Your task to perform on an android device: change the clock style Image 0: 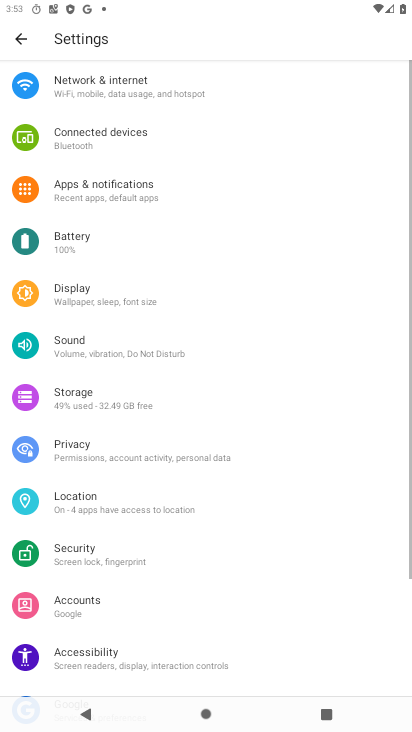
Step 0: press home button
Your task to perform on an android device: change the clock style Image 1: 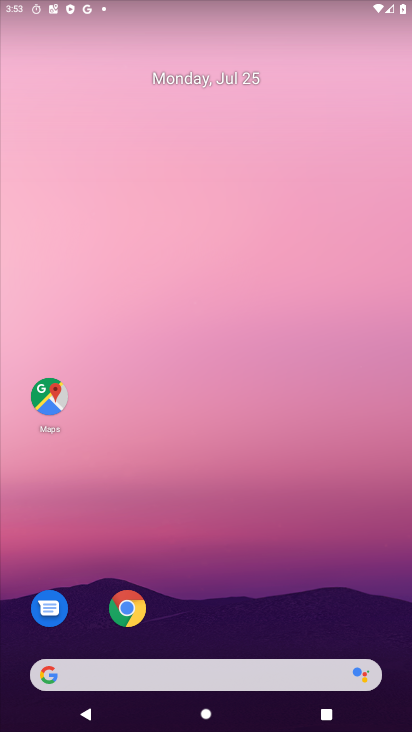
Step 1: drag from (208, 639) to (212, 7)
Your task to perform on an android device: change the clock style Image 2: 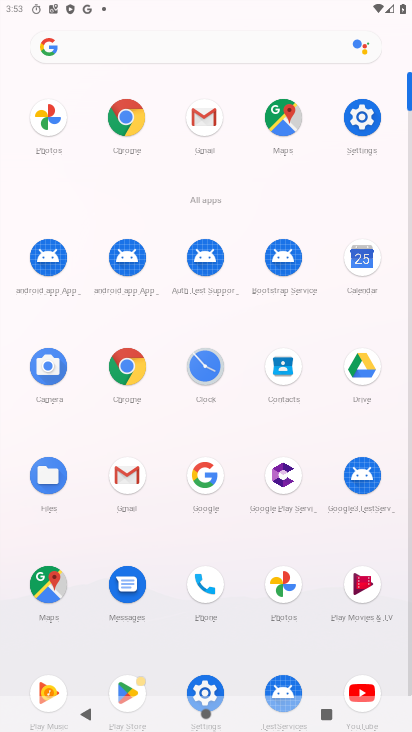
Step 2: click (204, 355)
Your task to perform on an android device: change the clock style Image 3: 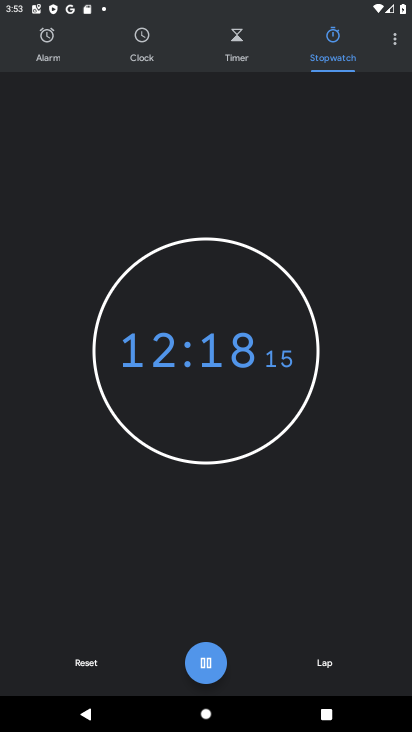
Step 3: click (86, 660)
Your task to perform on an android device: change the clock style Image 4: 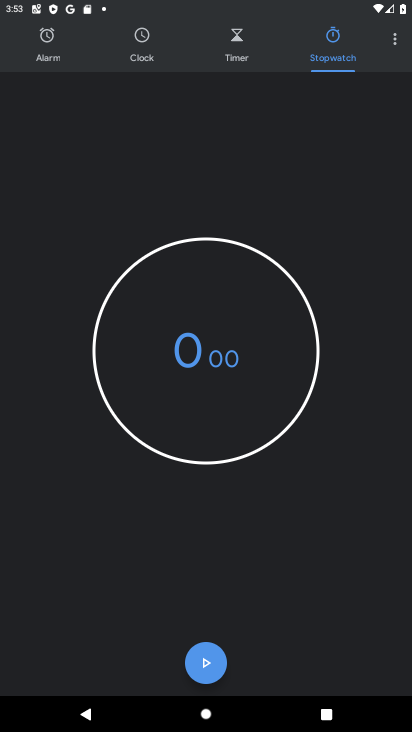
Step 4: click (391, 40)
Your task to perform on an android device: change the clock style Image 5: 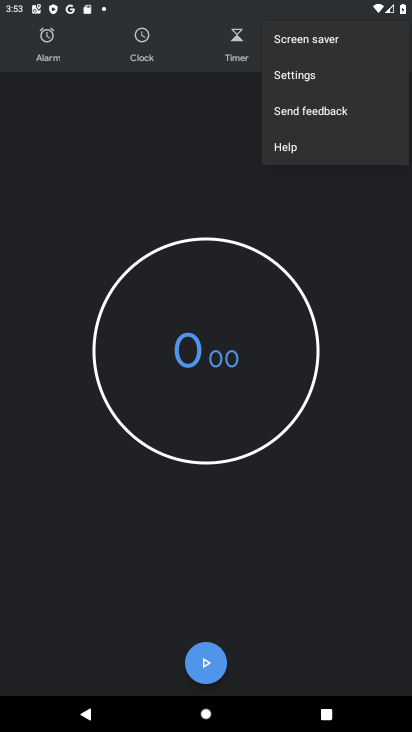
Step 5: click (318, 72)
Your task to perform on an android device: change the clock style Image 6: 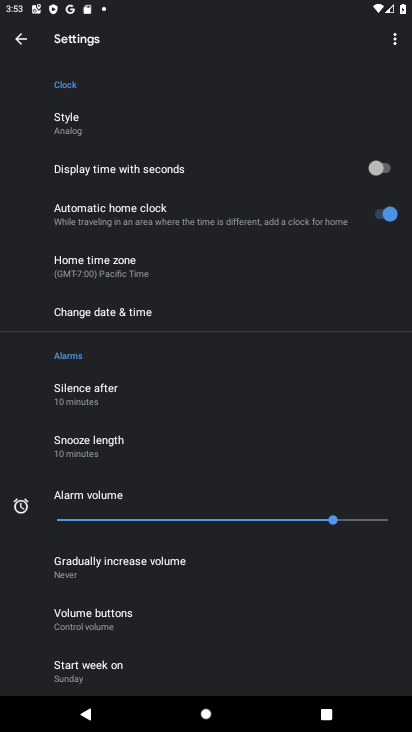
Step 6: click (83, 118)
Your task to perform on an android device: change the clock style Image 7: 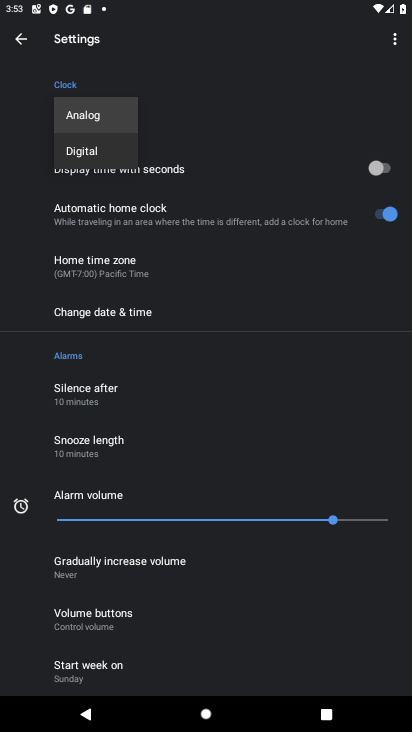
Step 7: click (102, 153)
Your task to perform on an android device: change the clock style Image 8: 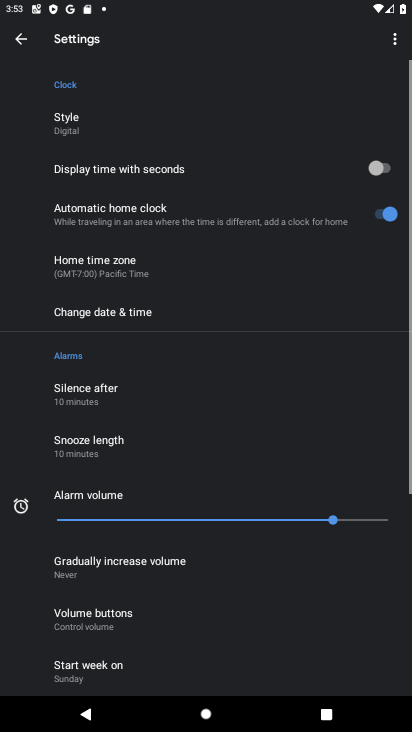
Step 8: task complete